Your task to perform on an android device: empty trash in the gmail app Image 0: 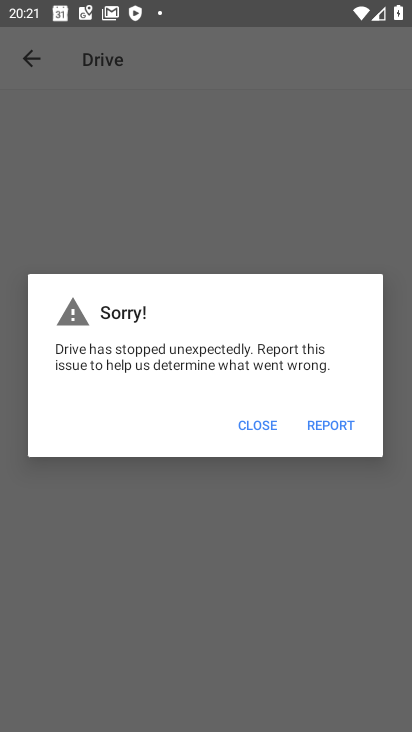
Step 0: drag from (281, 704) to (340, 357)
Your task to perform on an android device: empty trash in the gmail app Image 1: 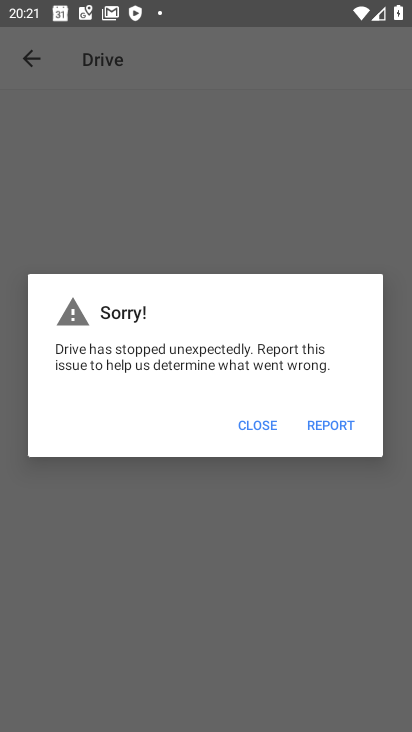
Step 1: press home button
Your task to perform on an android device: empty trash in the gmail app Image 2: 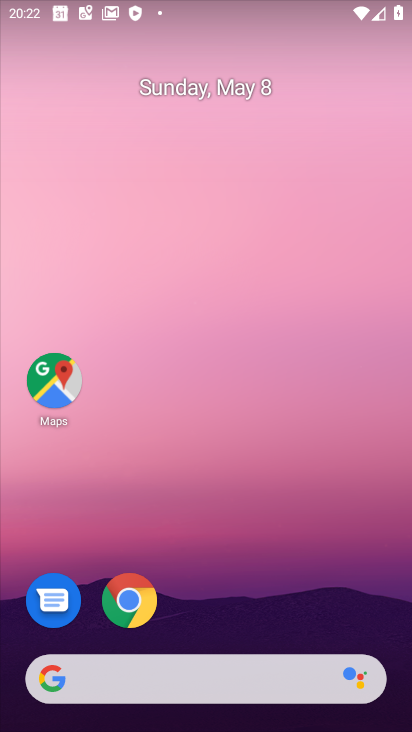
Step 2: drag from (228, 712) to (287, 383)
Your task to perform on an android device: empty trash in the gmail app Image 3: 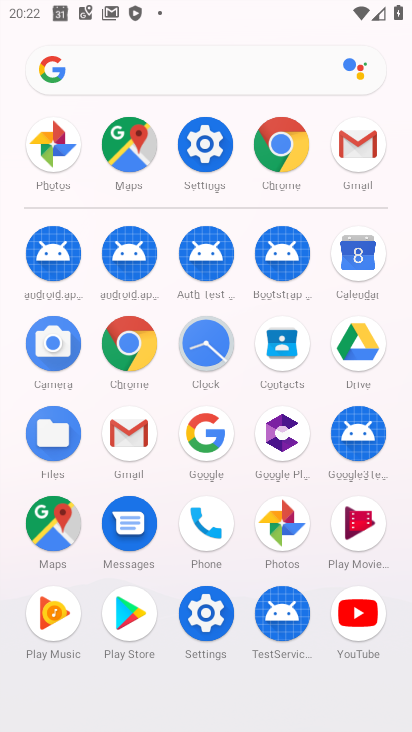
Step 3: drag from (221, 713) to (327, 338)
Your task to perform on an android device: empty trash in the gmail app Image 4: 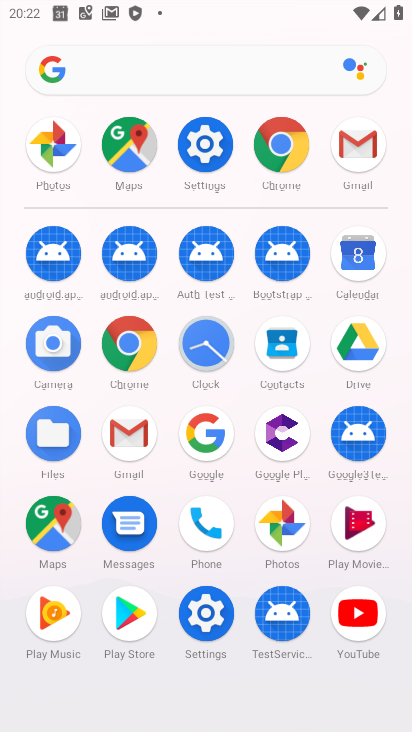
Step 4: click (143, 430)
Your task to perform on an android device: empty trash in the gmail app Image 5: 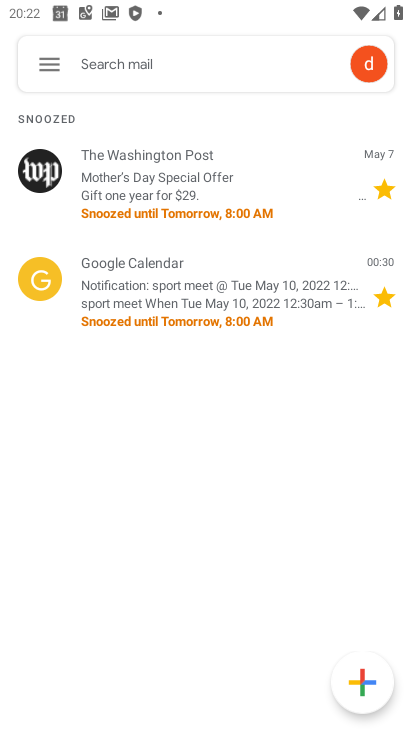
Step 5: click (40, 61)
Your task to perform on an android device: empty trash in the gmail app Image 6: 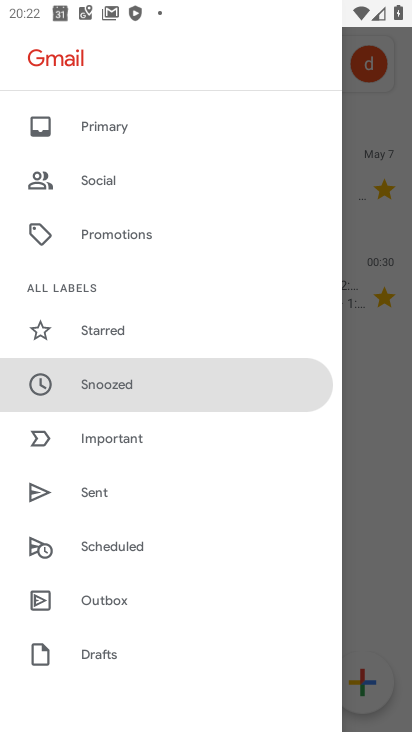
Step 6: drag from (142, 526) to (180, 318)
Your task to perform on an android device: empty trash in the gmail app Image 7: 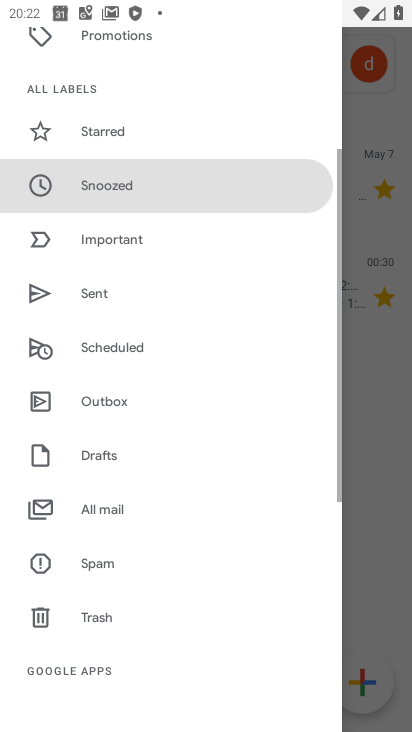
Step 7: drag from (139, 515) to (165, 414)
Your task to perform on an android device: empty trash in the gmail app Image 8: 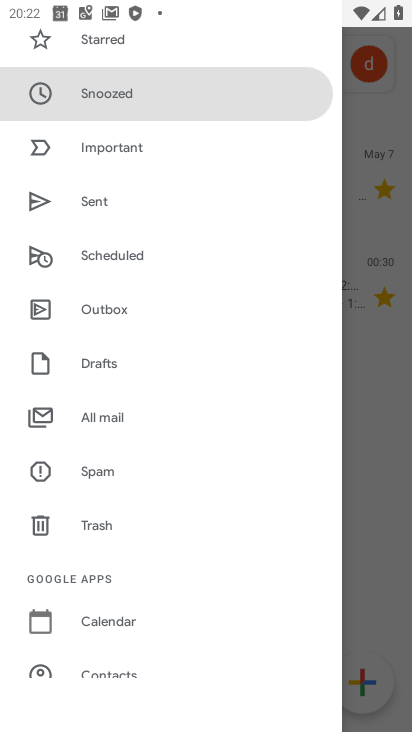
Step 8: click (107, 526)
Your task to perform on an android device: empty trash in the gmail app Image 9: 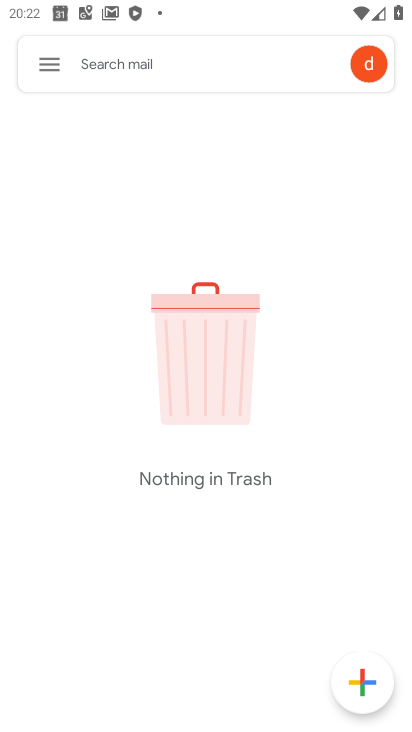
Step 9: task complete